Your task to perform on an android device: What's the weather? Image 0: 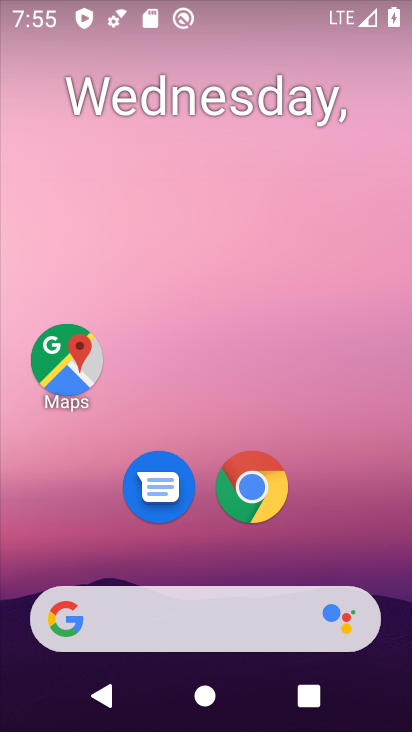
Step 0: click (152, 616)
Your task to perform on an android device: What's the weather? Image 1: 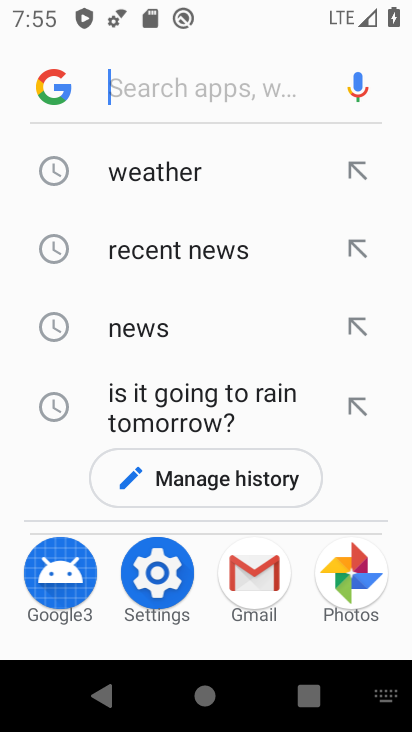
Step 1: click (205, 176)
Your task to perform on an android device: What's the weather? Image 2: 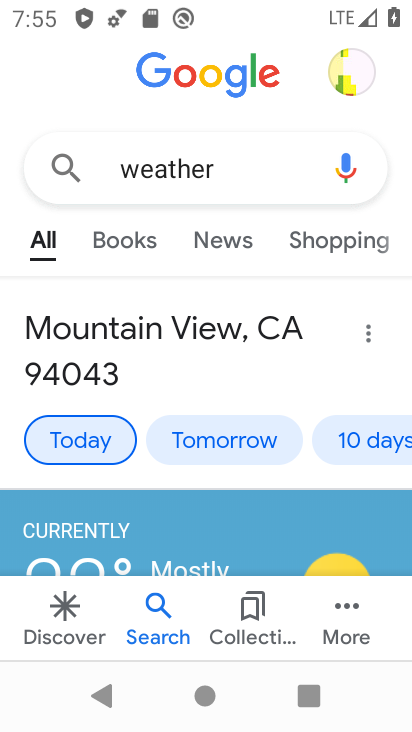
Step 2: task complete